Your task to perform on an android device: See recent photos Image 0: 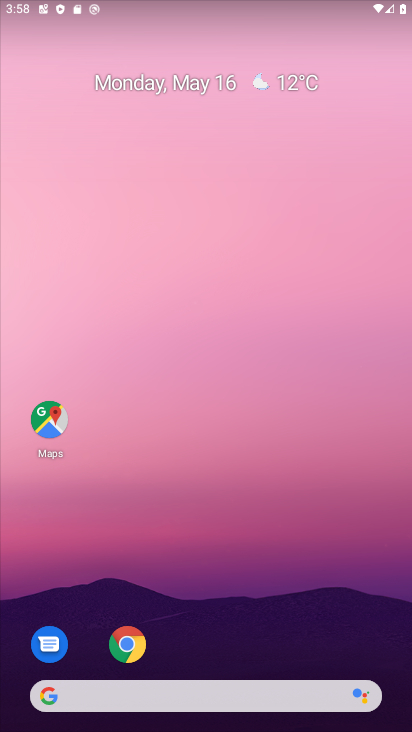
Step 0: drag from (235, 554) to (317, 55)
Your task to perform on an android device: See recent photos Image 1: 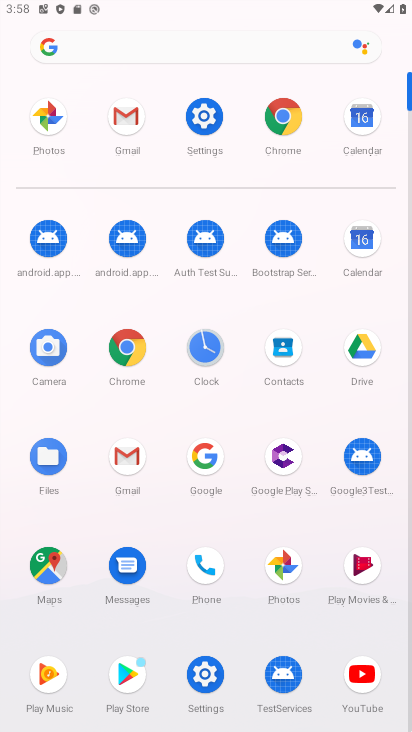
Step 1: click (285, 576)
Your task to perform on an android device: See recent photos Image 2: 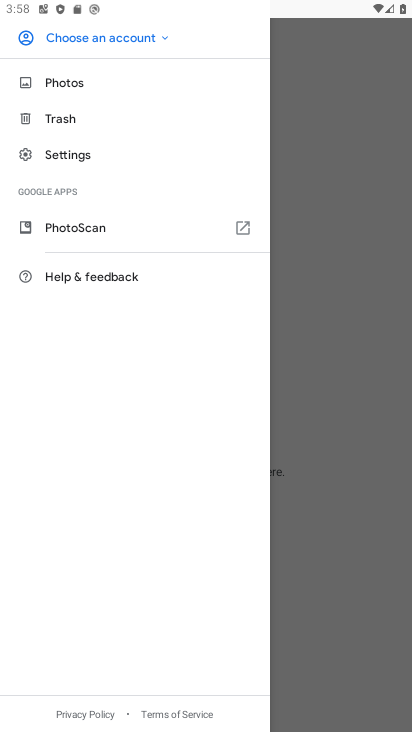
Step 2: click (345, 318)
Your task to perform on an android device: See recent photos Image 3: 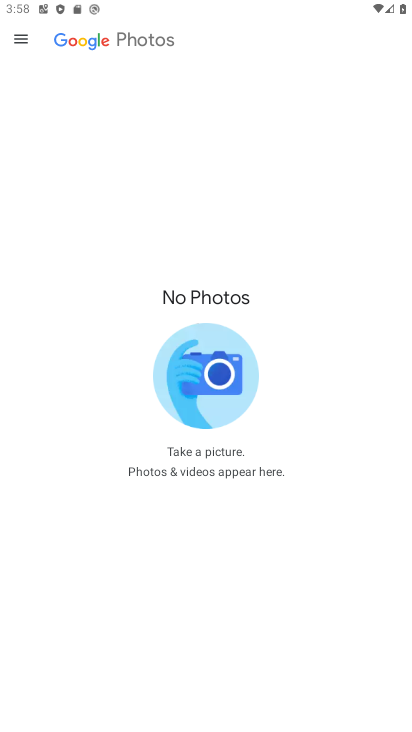
Step 3: task complete